Your task to perform on an android device: Search for Italian restaurants on Maps Image 0: 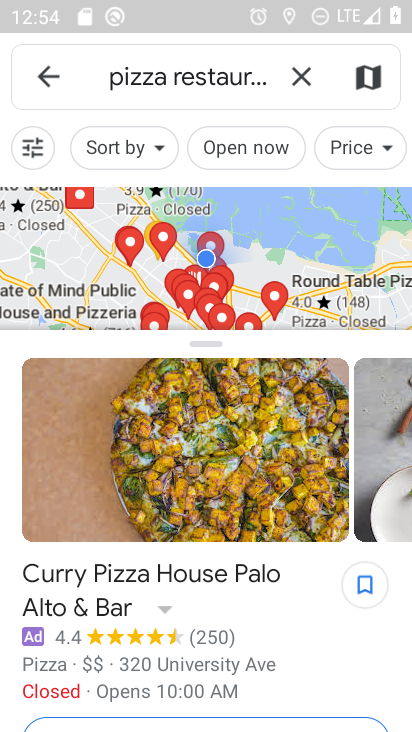
Step 0: click (296, 80)
Your task to perform on an android device: Search for Italian restaurants on Maps Image 1: 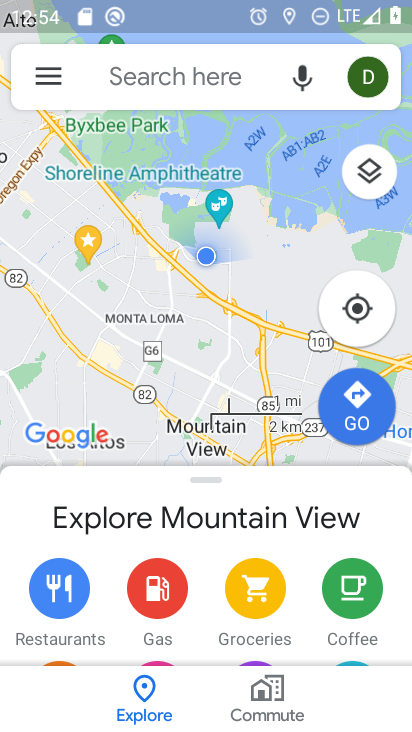
Step 1: click (133, 67)
Your task to perform on an android device: Search for Italian restaurants on Maps Image 2: 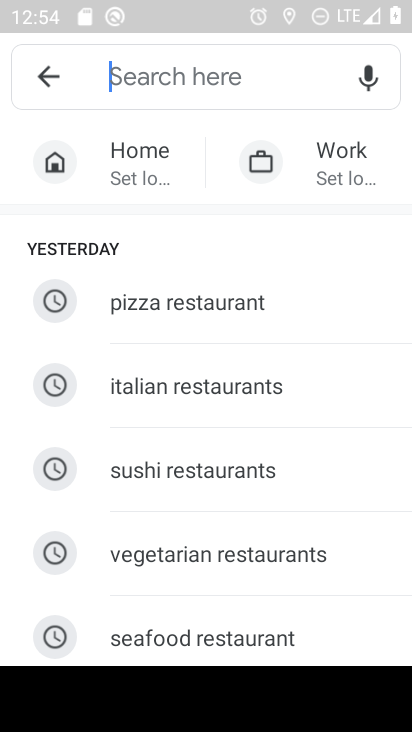
Step 2: type "italian restaurants"
Your task to perform on an android device: Search for Italian restaurants on Maps Image 3: 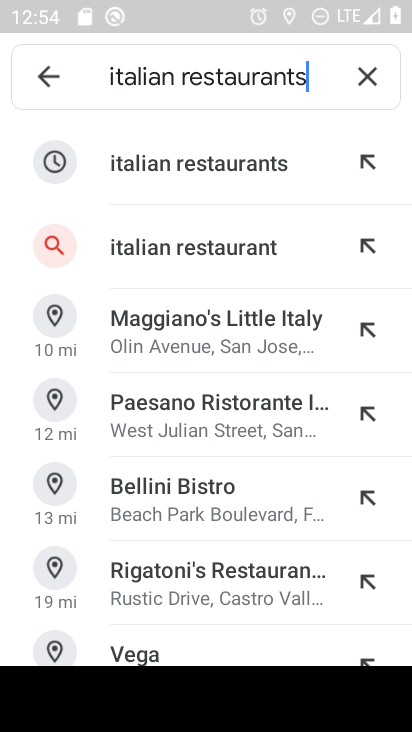
Step 3: click (204, 148)
Your task to perform on an android device: Search for Italian restaurants on Maps Image 4: 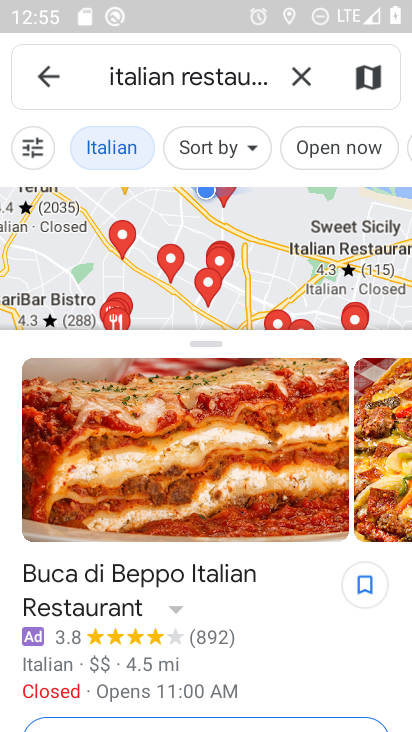
Step 4: task complete